Your task to perform on an android device: turn on translation in the chrome app Image 0: 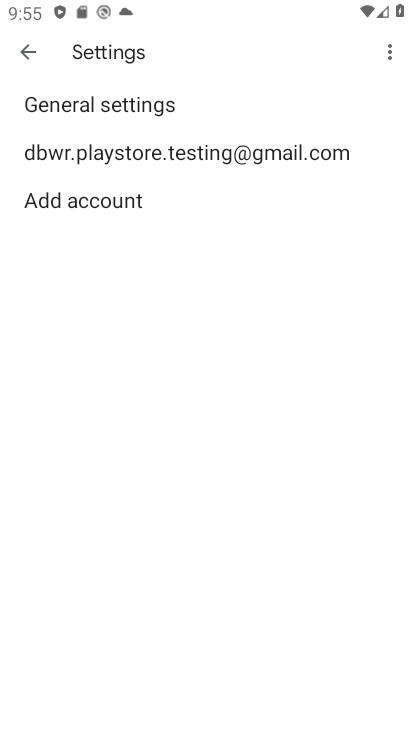
Step 0: press home button
Your task to perform on an android device: turn on translation in the chrome app Image 1: 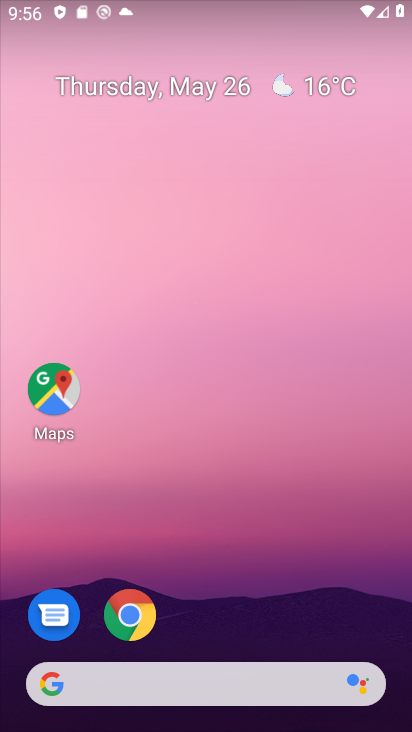
Step 1: drag from (265, 716) to (213, 236)
Your task to perform on an android device: turn on translation in the chrome app Image 2: 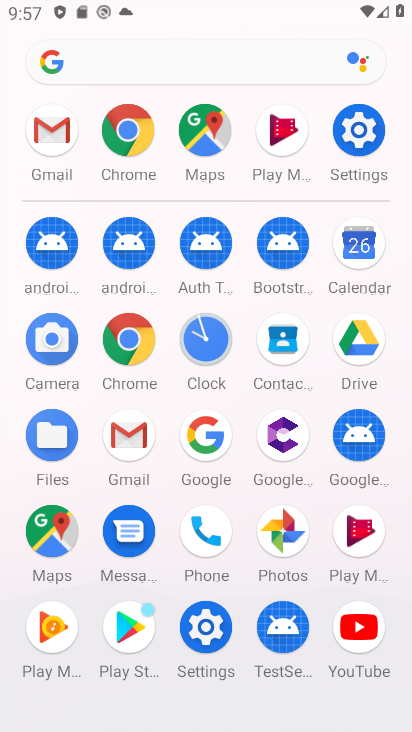
Step 2: click (145, 344)
Your task to perform on an android device: turn on translation in the chrome app Image 3: 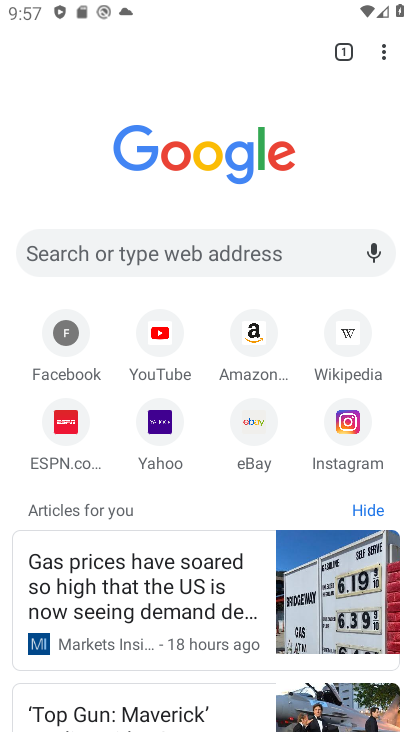
Step 3: click (381, 63)
Your task to perform on an android device: turn on translation in the chrome app Image 4: 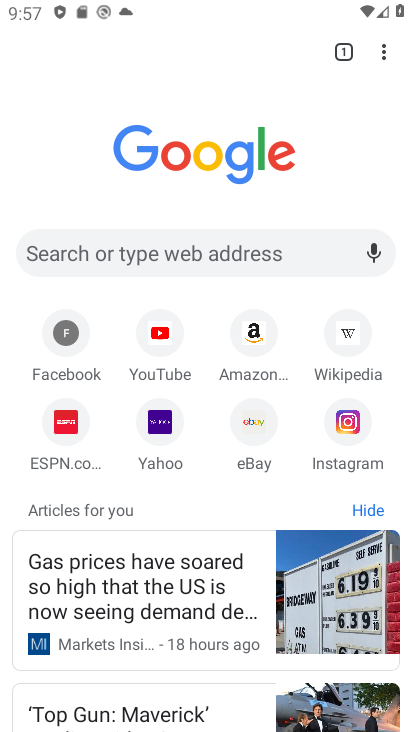
Step 4: click (385, 56)
Your task to perform on an android device: turn on translation in the chrome app Image 5: 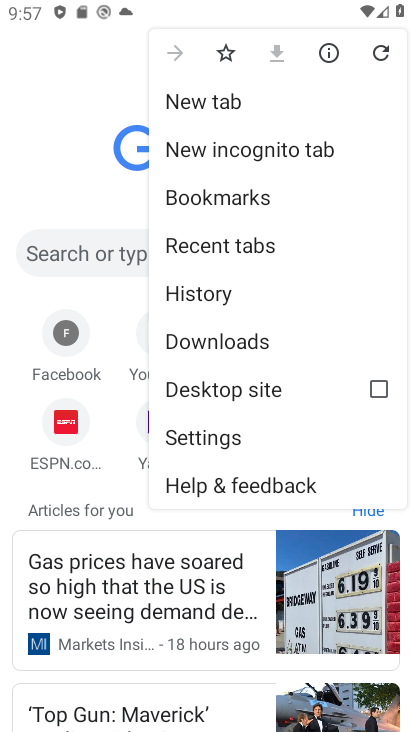
Step 5: click (186, 434)
Your task to perform on an android device: turn on translation in the chrome app Image 6: 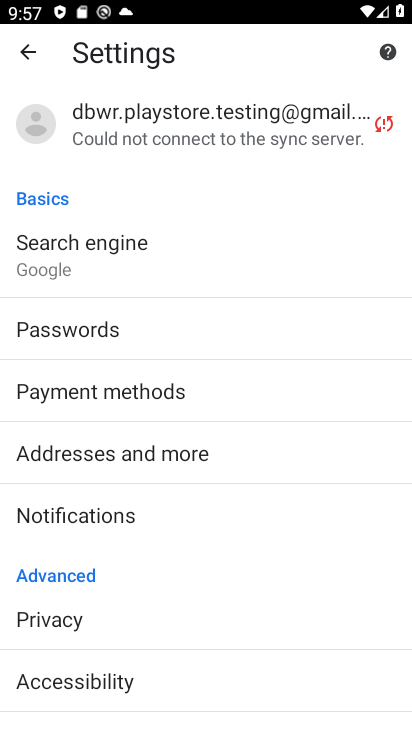
Step 6: drag from (111, 560) to (129, 305)
Your task to perform on an android device: turn on translation in the chrome app Image 7: 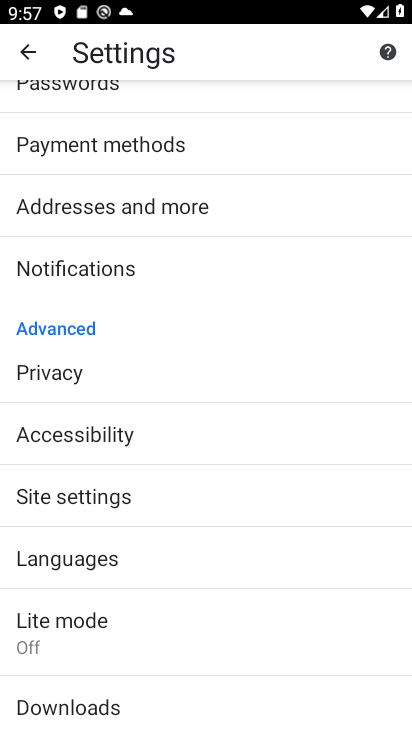
Step 7: click (109, 554)
Your task to perform on an android device: turn on translation in the chrome app Image 8: 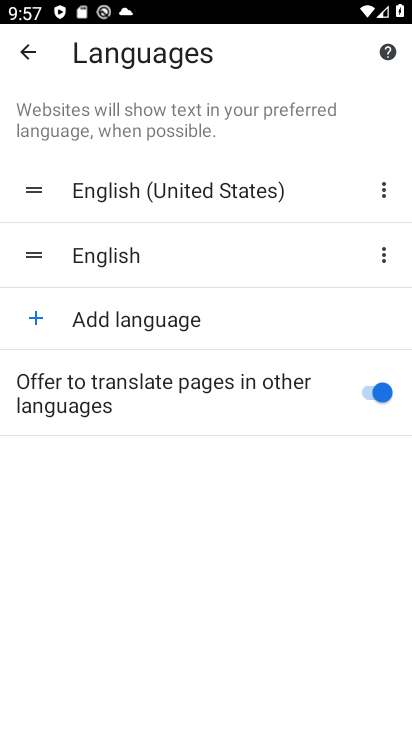
Step 8: click (366, 388)
Your task to perform on an android device: turn on translation in the chrome app Image 9: 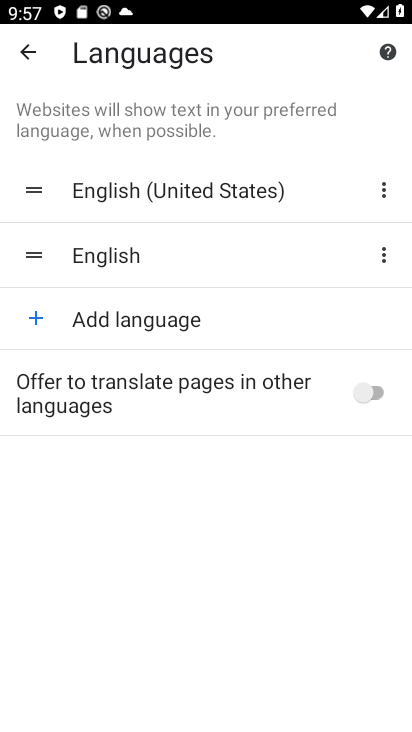
Step 9: click (367, 386)
Your task to perform on an android device: turn on translation in the chrome app Image 10: 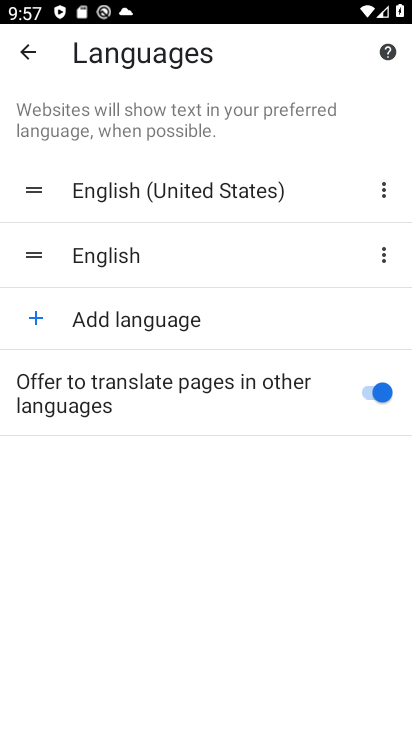
Step 10: task complete